Your task to perform on an android device: make emails show in primary in the gmail app Image 0: 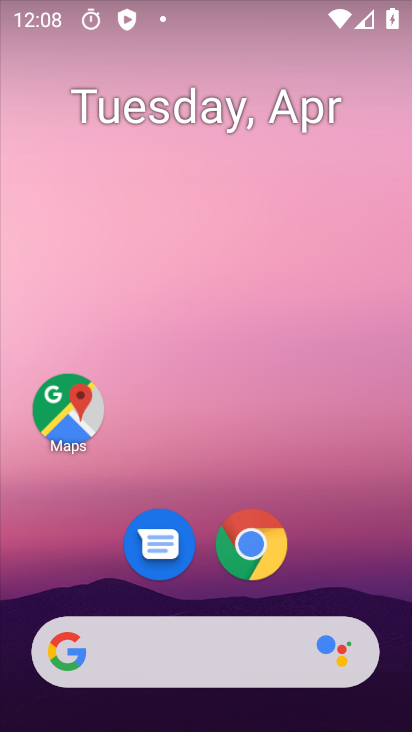
Step 0: drag from (364, 567) to (391, 22)
Your task to perform on an android device: make emails show in primary in the gmail app Image 1: 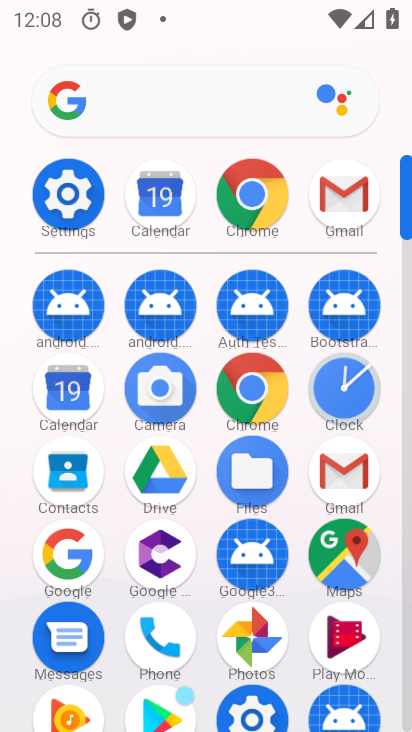
Step 1: click (345, 204)
Your task to perform on an android device: make emails show in primary in the gmail app Image 2: 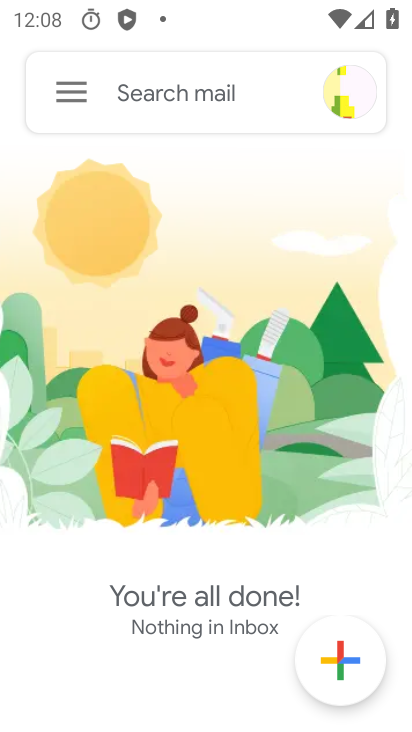
Step 2: click (65, 91)
Your task to perform on an android device: make emails show in primary in the gmail app Image 3: 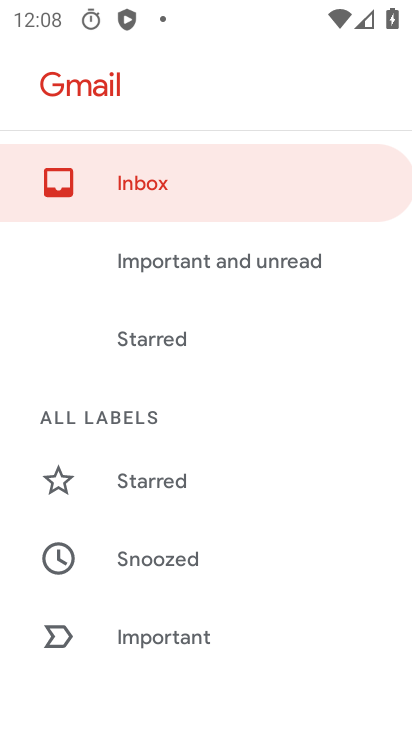
Step 3: drag from (261, 570) to (277, 281)
Your task to perform on an android device: make emails show in primary in the gmail app Image 4: 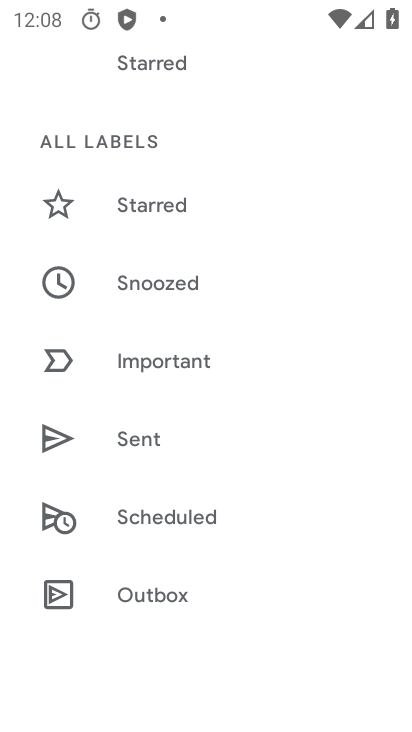
Step 4: drag from (257, 510) to (236, 162)
Your task to perform on an android device: make emails show in primary in the gmail app Image 5: 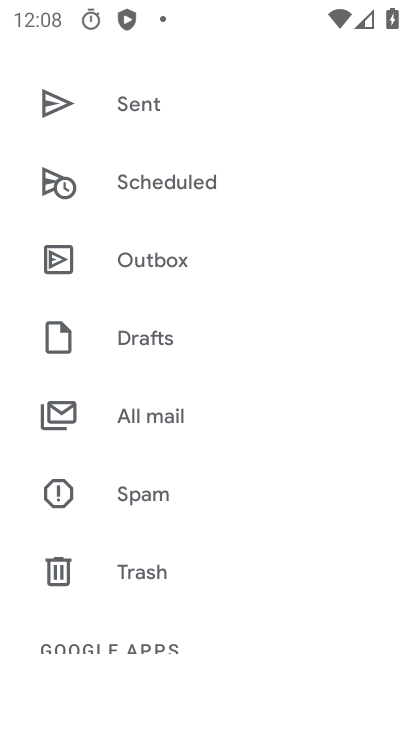
Step 5: drag from (243, 546) to (231, 168)
Your task to perform on an android device: make emails show in primary in the gmail app Image 6: 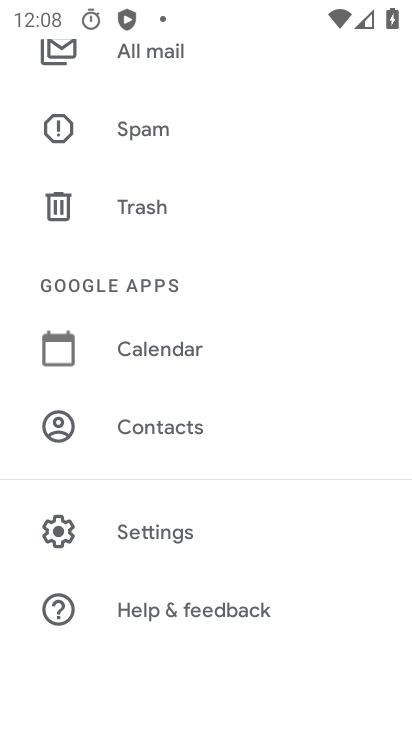
Step 6: click (155, 532)
Your task to perform on an android device: make emails show in primary in the gmail app Image 7: 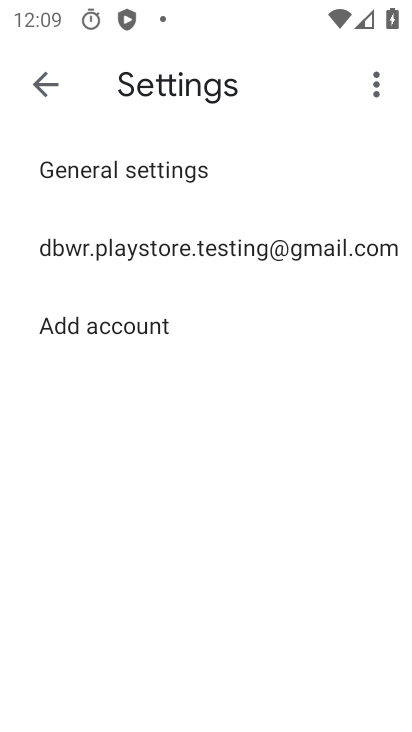
Step 7: click (153, 252)
Your task to perform on an android device: make emails show in primary in the gmail app Image 8: 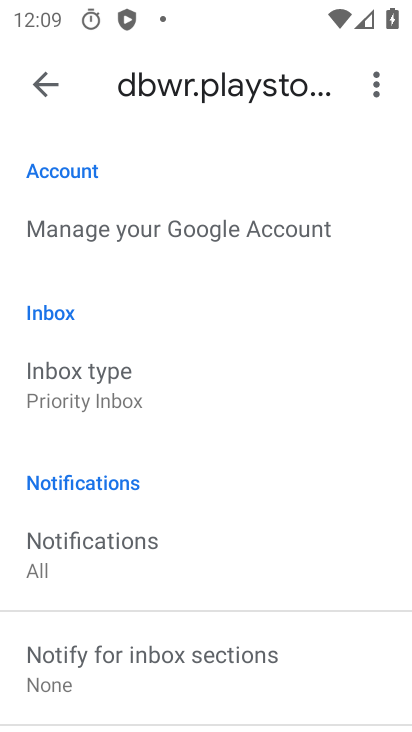
Step 8: task complete